Your task to perform on an android device: change the clock display to analog Image 0: 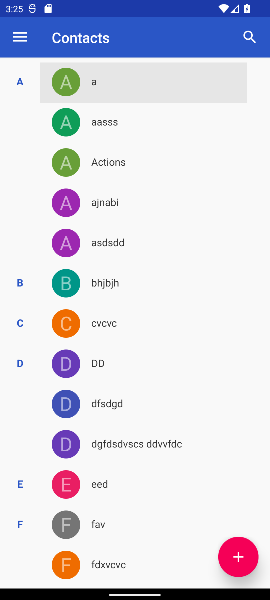
Step 0: press home button
Your task to perform on an android device: change the clock display to analog Image 1: 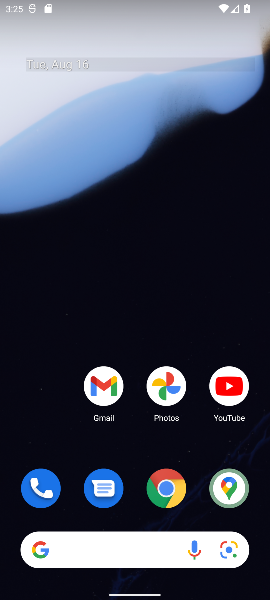
Step 1: drag from (41, 379) to (78, 153)
Your task to perform on an android device: change the clock display to analog Image 2: 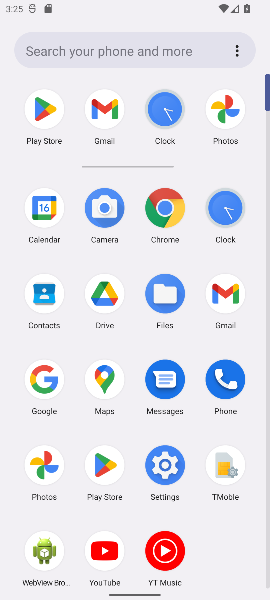
Step 2: click (226, 205)
Your task to perform on an android device: change the clock display to analog Image 3: 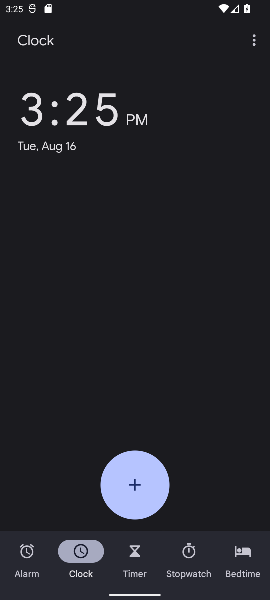
Step 3: task complete